Your task to perform on an android device: change notifications settings Image 0: 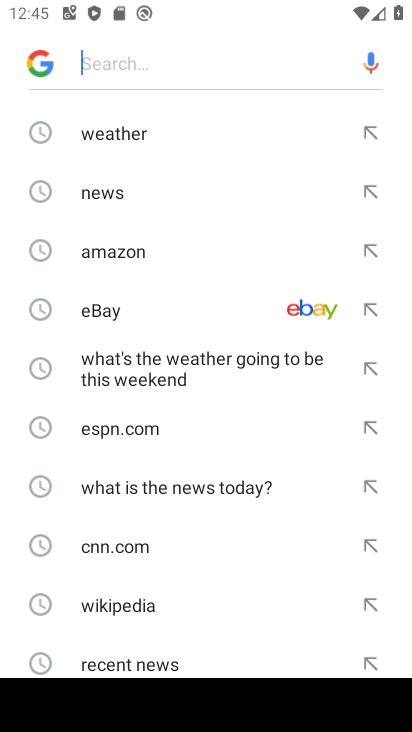
Step 0: press home button
Your task to perform on an android device: change notifications settings Image 1: 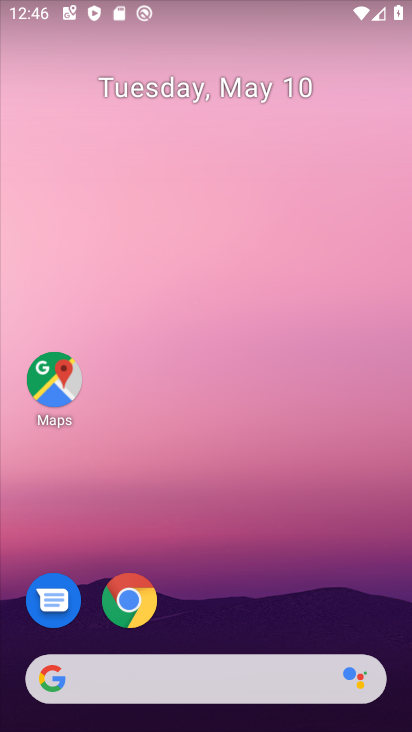
Step 1: drag from (208, 658) to (220, 274)
Your task to perform on an android device: change notifications settings Image 2: 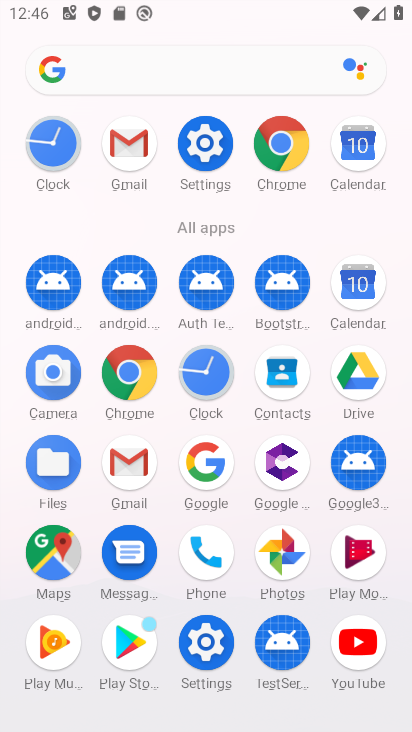
Step 2: click (206, 663)
Your task to perform on an android device: change notifications settings Image 3: 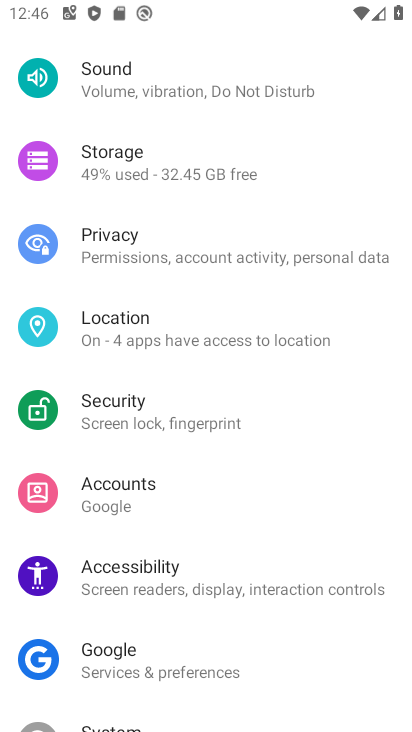
Step 3: drag from (228, 107) to (312, 368)
Your task to perform on an android device: change notifications settings Image 4: 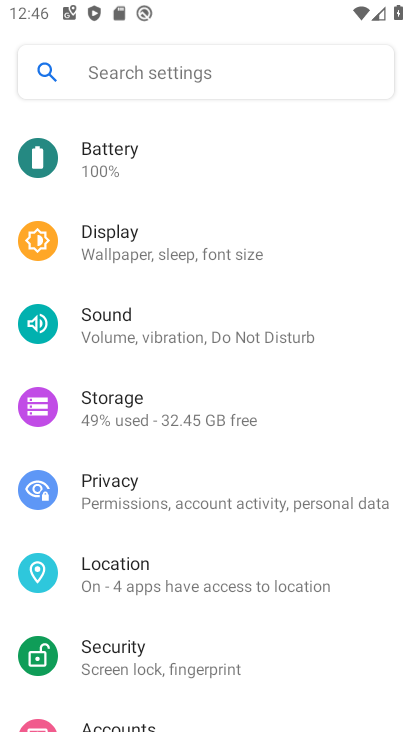
Step 4: drag from (171, 198) to (224, 356)
Your task to perform on an android device: change notifications settings Image 5: 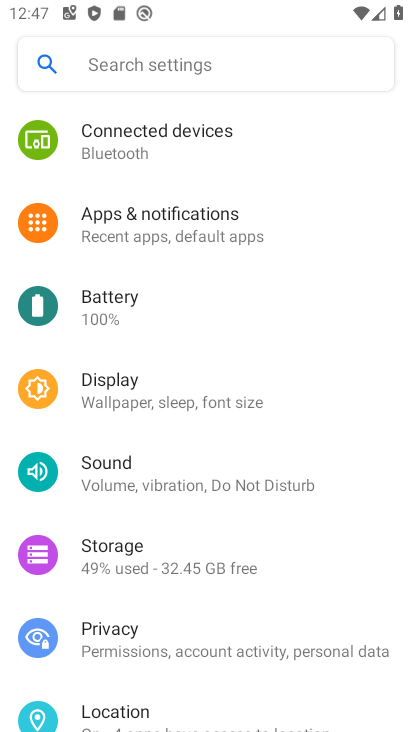
Step 5: click (173, 483)
Your task to perform on an android device: change notifications settings Image 6: 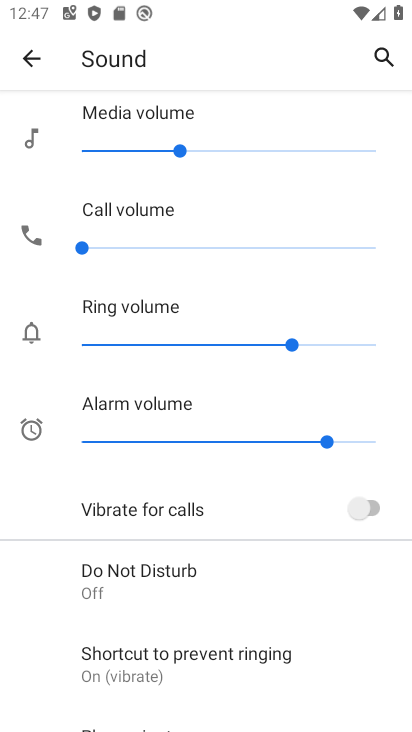
Step 6: click (356, 500)
Your task to perform on an android device: change notifications settings Image 7: 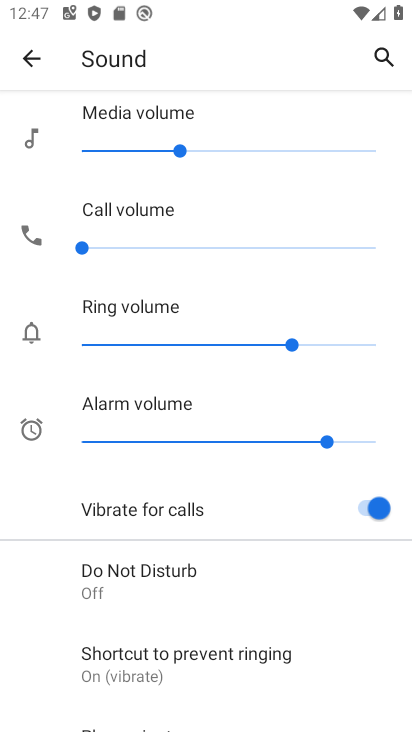
Step 7: task complete